Your task to perform on an android device: Open the calendar and show me this week's events? Image 0: 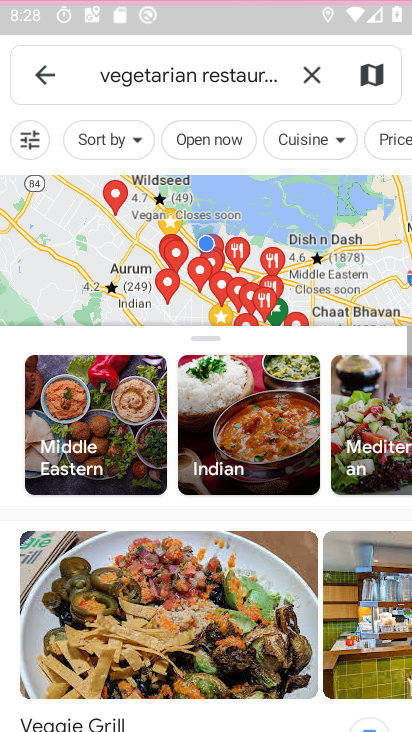
Step 0: press home button
Your task to perform on an android device: Open the calendar and show me this week's events? Image 1: 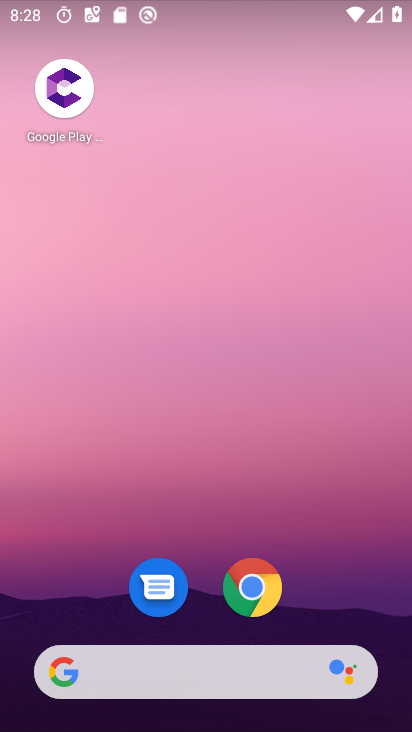
Step 1: drag from (388, 579) to (339, 104)
Your task to perform on an android device: Open the calendar and show me this week's events? Image 2: 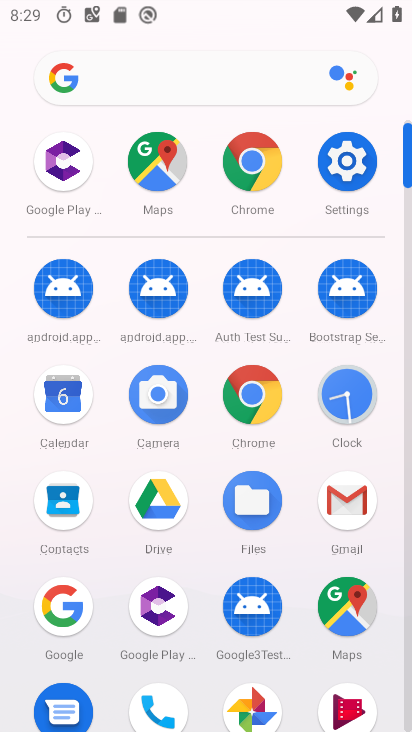
Step 2: click (51, 413)
Your task to perform on an android device: Open the calendar and show me this week's events? Image 3: 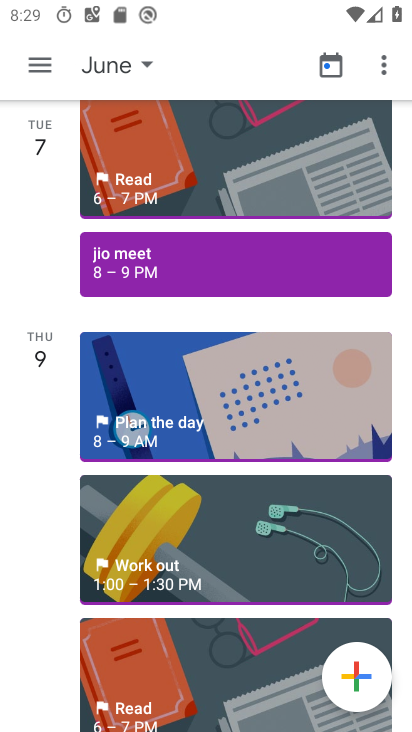
Step 3: drag from (73, 215) to (76, 594)
Your task to perform on an android device: Open the calendar and show me this week's events? Image 4: 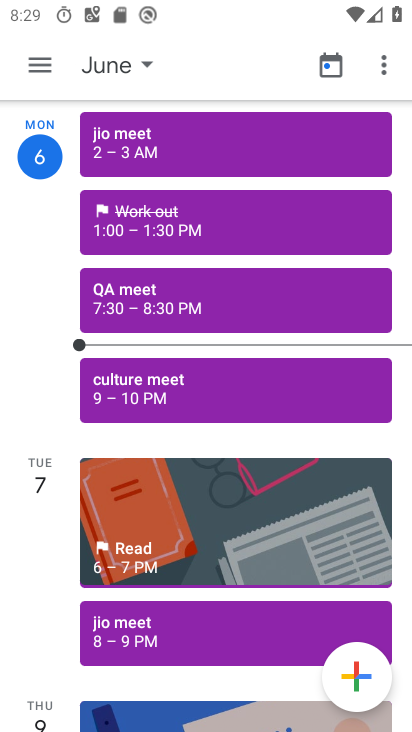
Step 4: drag from (72, 671) to (79, 443)
Your task to perform on an android device: Open the calendar and show me this week's events? Image 5: 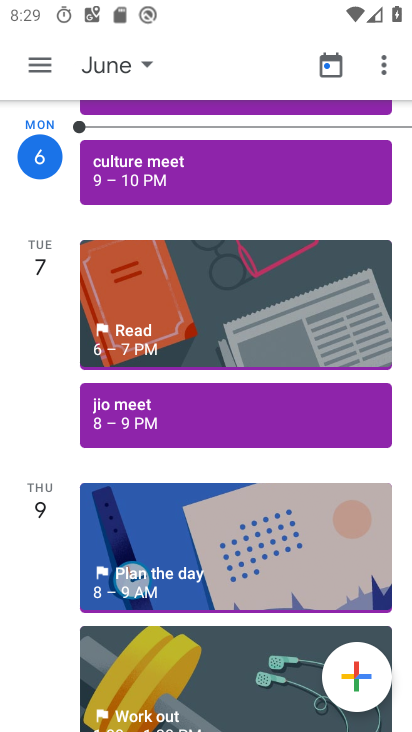
Step 5: click (99, 60)
Your task to perform on an android device: Open the calendar and show me this week's events? Image 6: 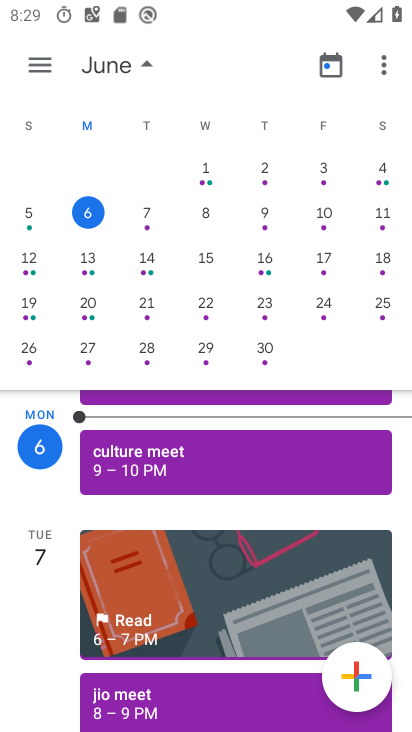
Step 6: task complete